Your task to perform on an android device: set the stopwatch Image 0: 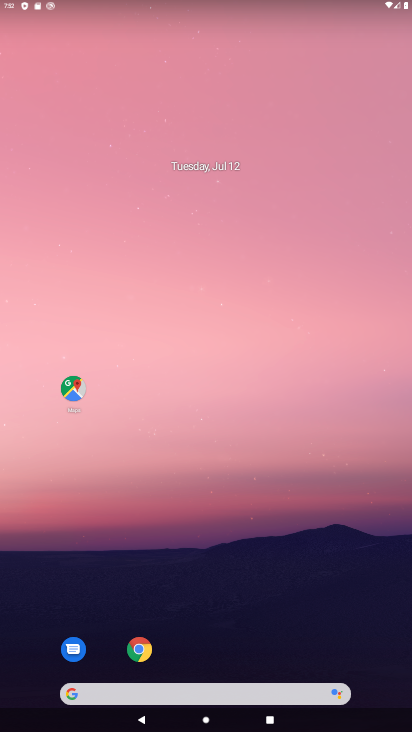
Step 0: click (314, 620)
Your task to perform on an android device: set the stopwatch Image 1: 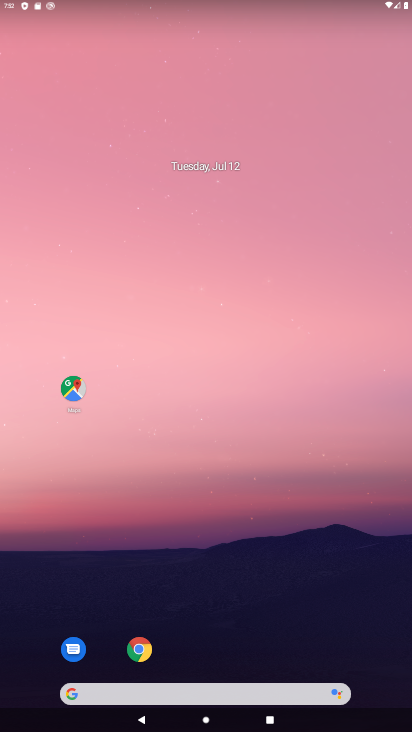
Step 1: drag from (333, 526) to (300, 168)
Your task to perform on an android device: set the stopwatch Image 2: 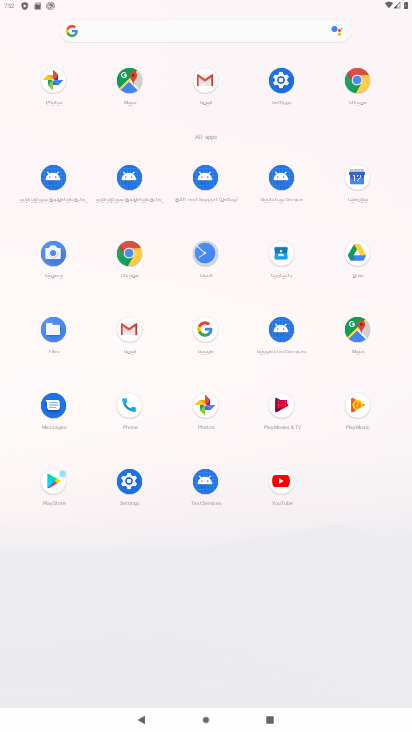
Step 2: click (204, 250)
Your task to perform on an android device: set the stopwatch Image 3: 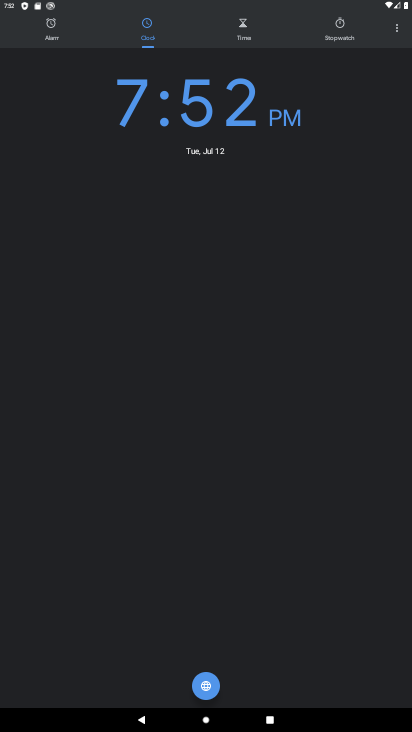
Step 3: click (346, 21)
Your task to perform on an android device: set the stopwatch Image 4: 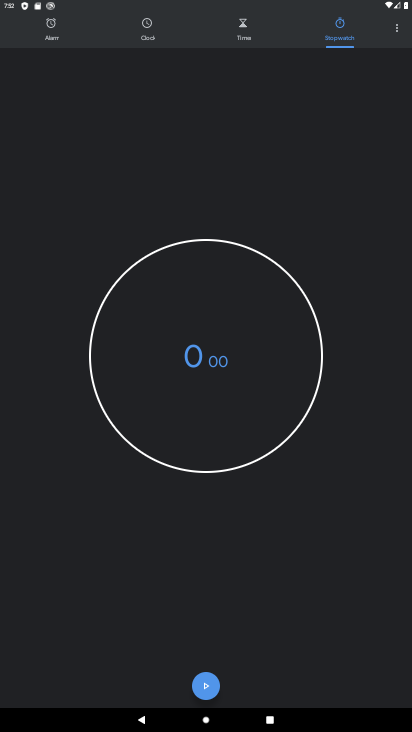
Step 4: click (203, 683)
Your task to perform on an android device: set the stopwatch Image 5: 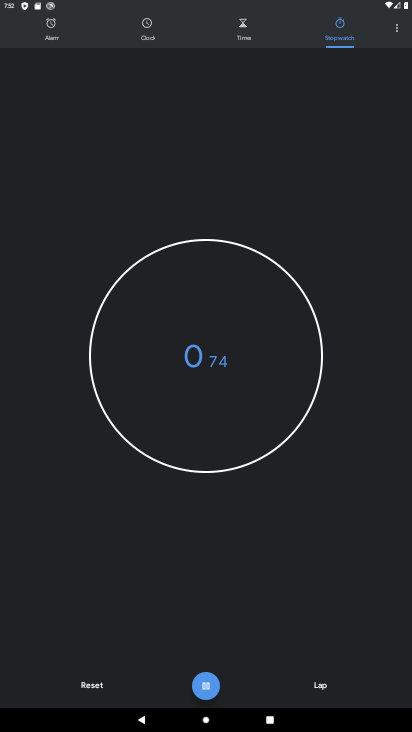
Step 5: click (203, 683)
Your task to perform on an android device: set the stopwatch Image 6: 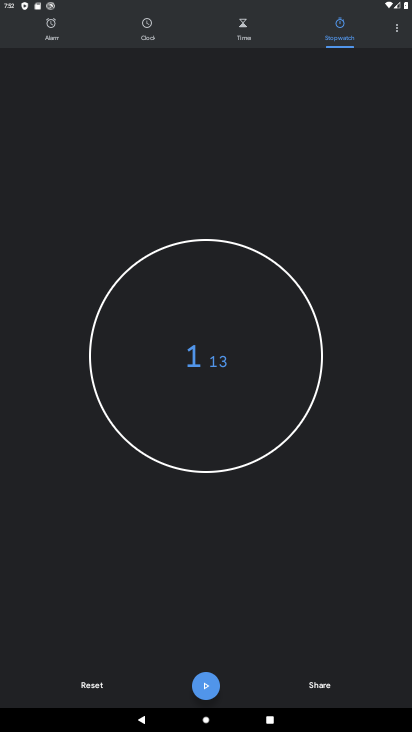
Step 6: task complete